Your task to perform on an android device: turn on the 12-hour format for clock Image 0: 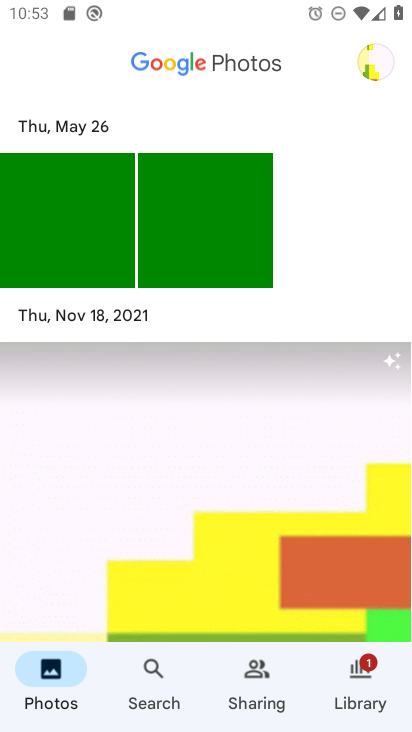
Step 0: press home button
Your task to perform on an android device: turn on the 12-hour format for clock Image 1: 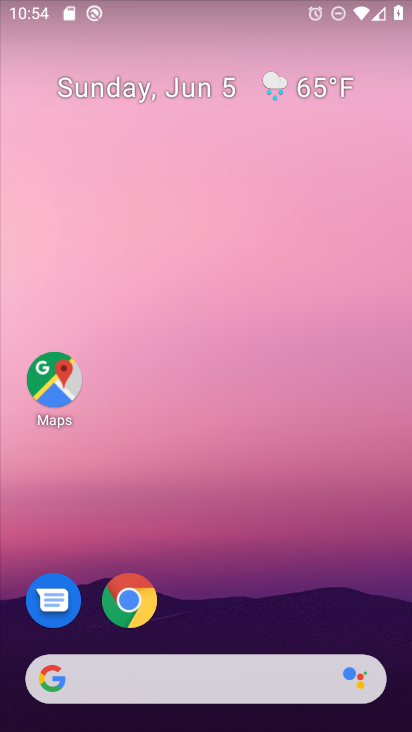
Step 1: drag from (394, 660) to (228, 34)
Your task to perform on an android device: turn on the 12-hour format for clock Image 2: 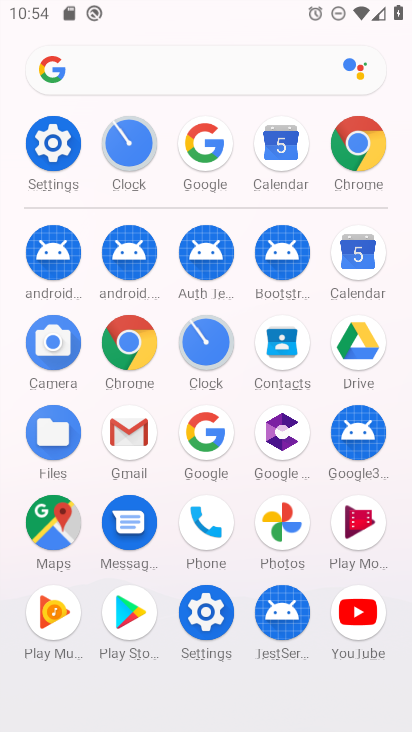
Step 2: click (192, 340)
Your task to perform on an android device: turn on the 12-hour format for clock Image 3: 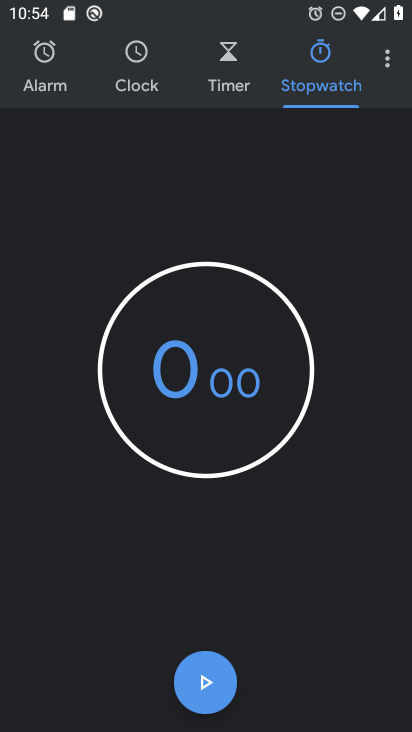
Step 3: click (385, 56)
Your task to perform on an android device: turn on the 12-hour format for clock Image 4: 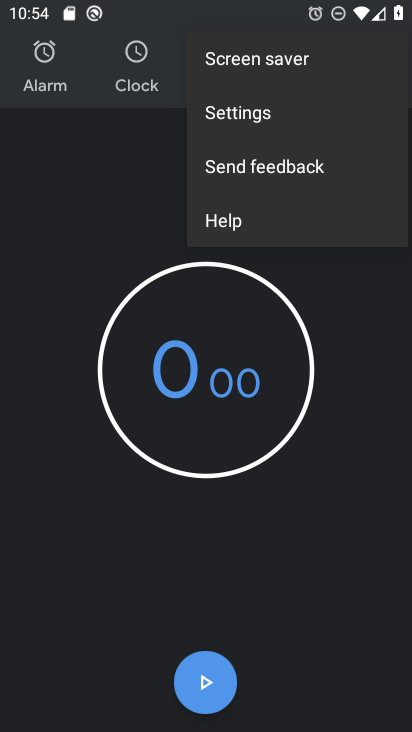
Step 4: click (272, 109)
Your task to perform on an android device: turn on the 12-hour format for clock Image 5: 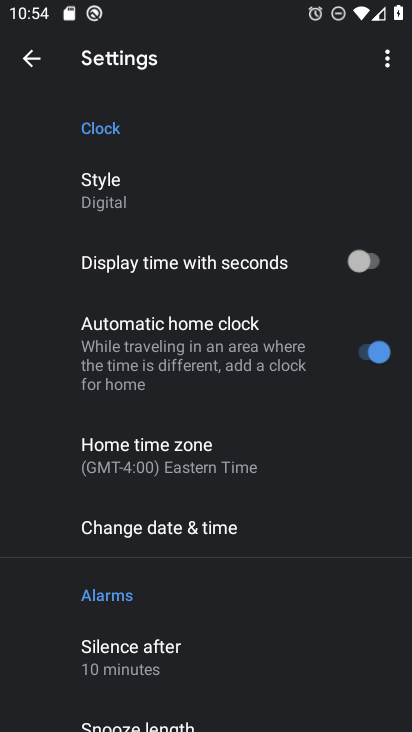
Step 5: click (269, 532)
Your task to perform on an android device: turn on the 12-hour format for clock Image 6: 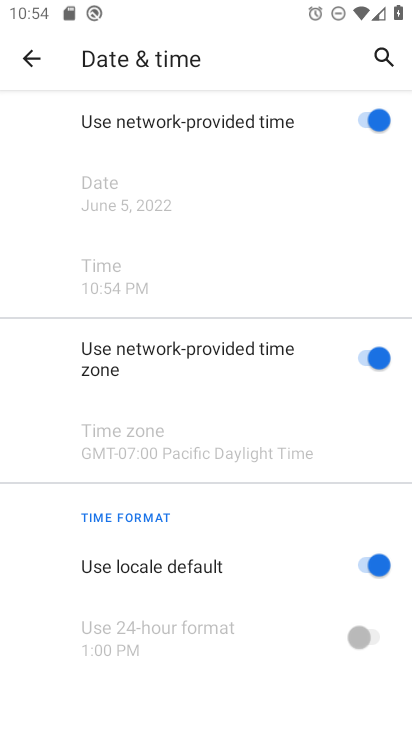
Step 6: task complete